Your task to perform on an android device: turn on data saver in the chrome app Image 0: 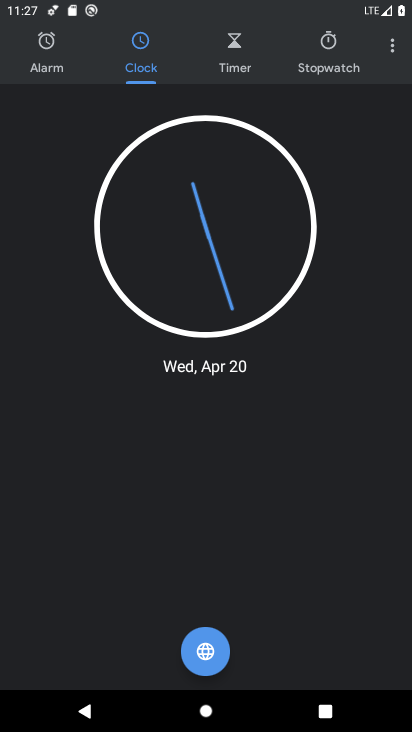
Step 0: press home button
Your task to perform on an android device: turn on data saver in the chrome app Image 1: 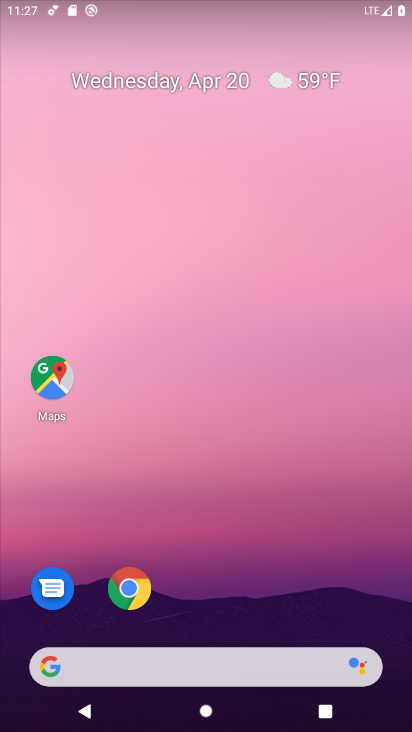
Step 1: click (130, 591)
Your task to perform on an android device: turn on data saver in the chrome app Image 2: 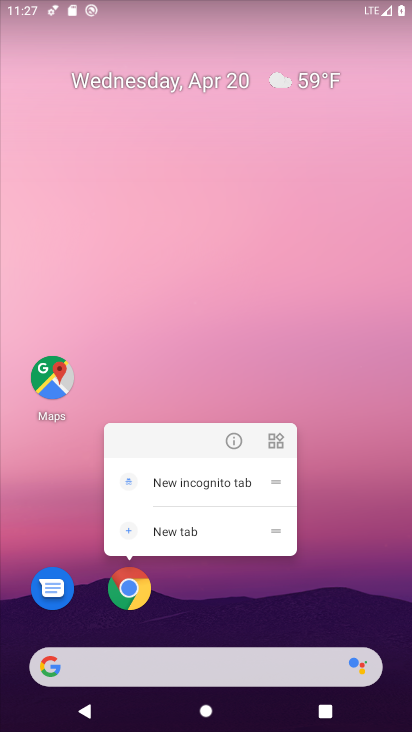
Step 2: click (137, 587)
Your task to perform on an android device: turn on data saver in the chrome app Image 3: 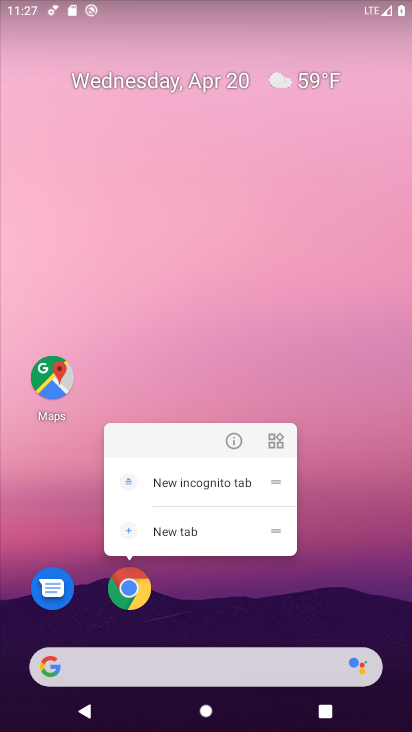
Step 3: click (137, 587)
Your task to perform on an android device: turn on data saver in the chrome app Image 4: 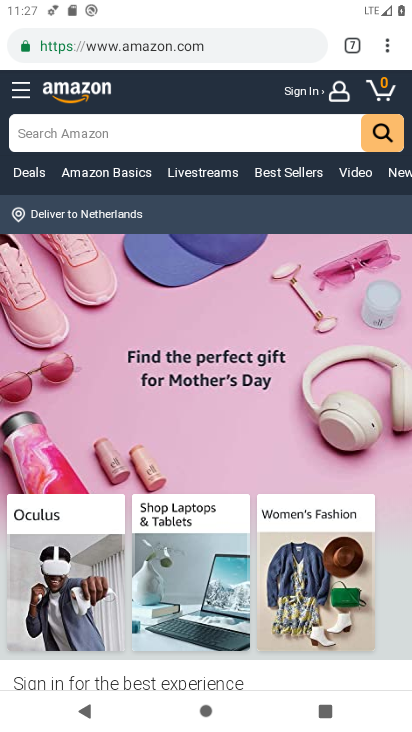
Step 4: click (385, 46)
Your task to perform on an android device: turn on data saver in the chrome app Image 5: 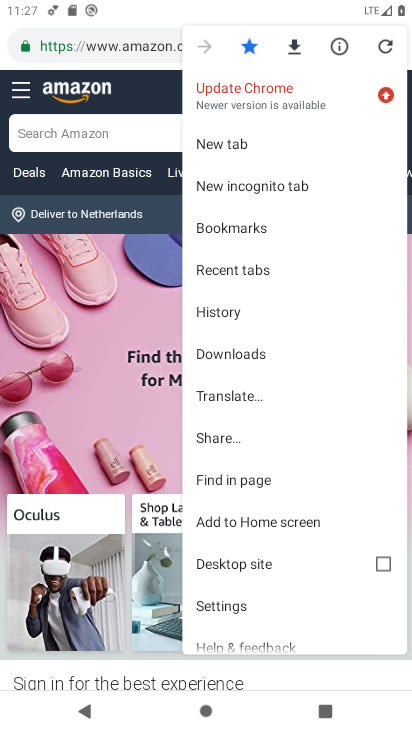
Step 5: click (230, 602)
Your task to perform on an android device: turn on data saver in the chrome app Image 6: 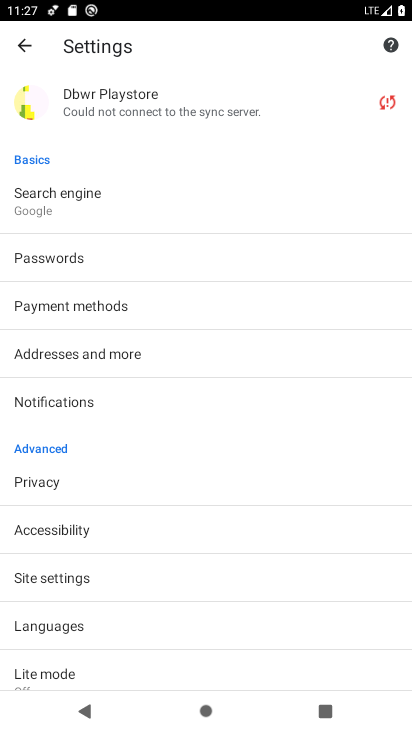
Step 6: drag from (151, 595) to (170, 171)
Your task to perform on an android device: turn on data saver in the chrome app Image 7: 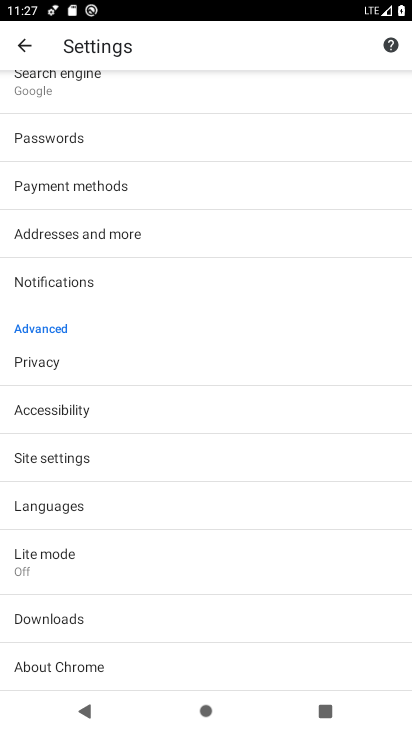
Step 7: click (57, 548)
Your task to perform on an android device: turn on data saver in the chrome app Image 8: 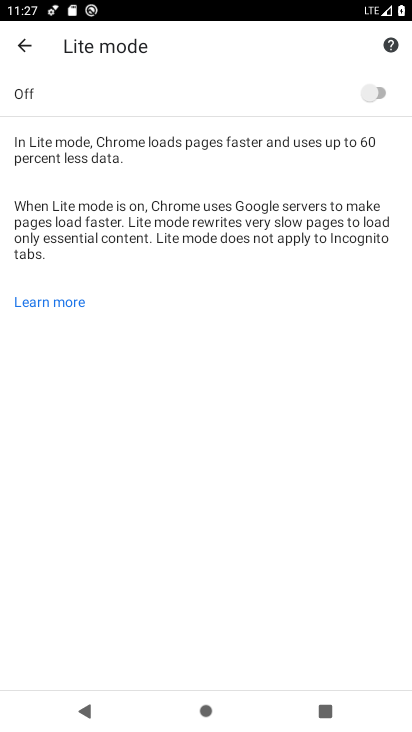
Step 8: click (368, 97)
Your task to perform on an android device: turn on data saver in the chrome app Image 9: 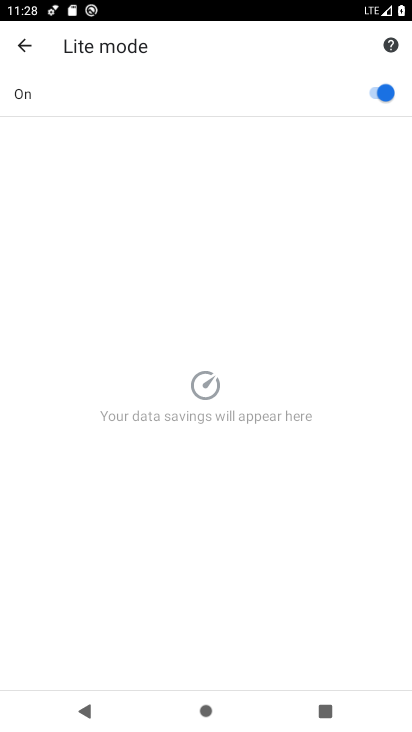
Step 9: task complete